Your task to perform on an android device: turn off wifi Image 0: 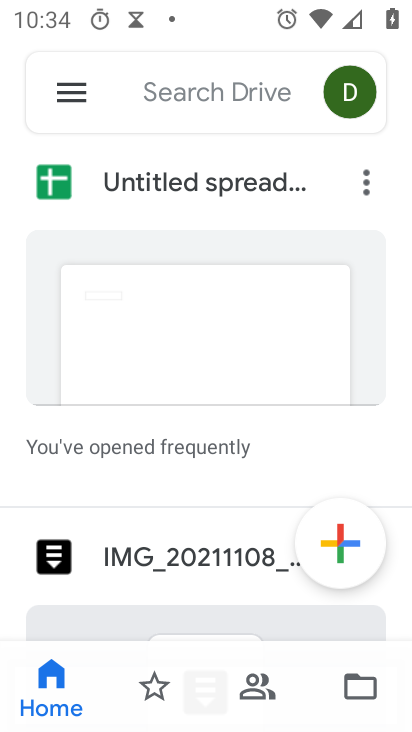
Step 0: press home button
Your task to perform on an android device: turn off wifi Image 1: 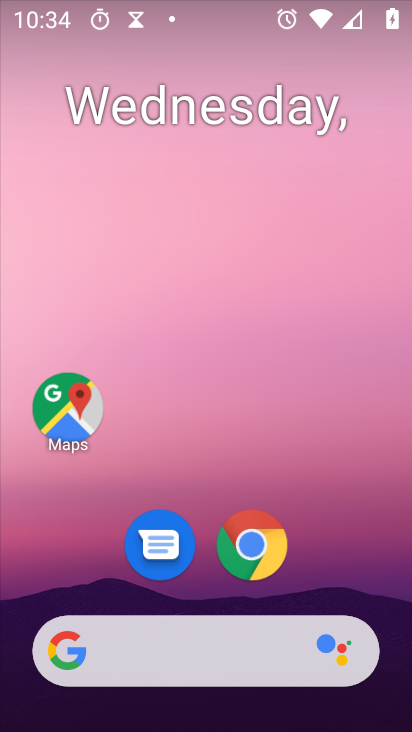
Step 1: drag from (158, 616) to (273, 127)
Your task to perform on an android device: turn off wifi Image 2: 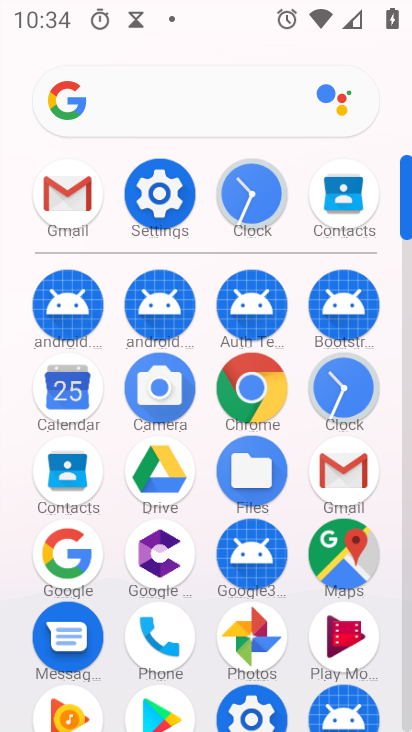
Step 2: click (167, 199)
Your task to perform on an android device: turn off wifi Image 3: 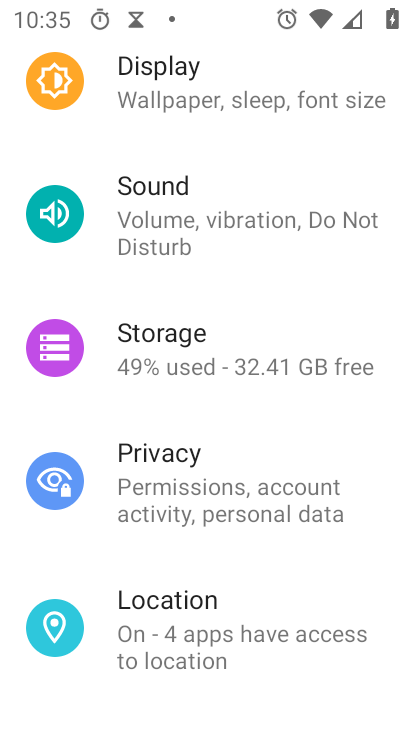
Step 3: drag from (258, 139) to (209, 502)
Your task to perform on an android device: turn off wifi Image 4: 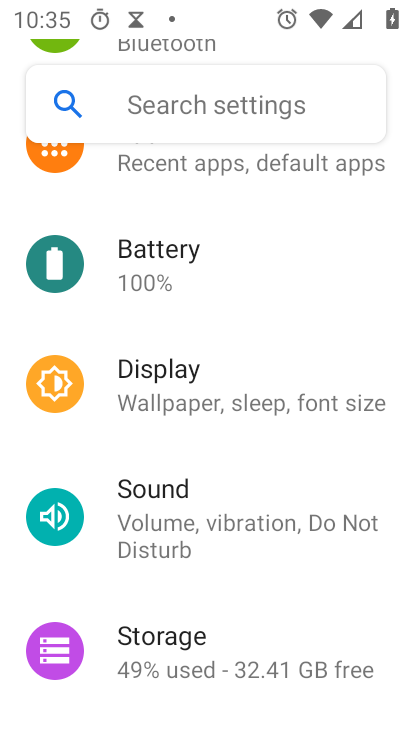
Step 4: drag from (271, 315) to (210, 667)
Your task to perform on an android device: turn off wifi Image 5: 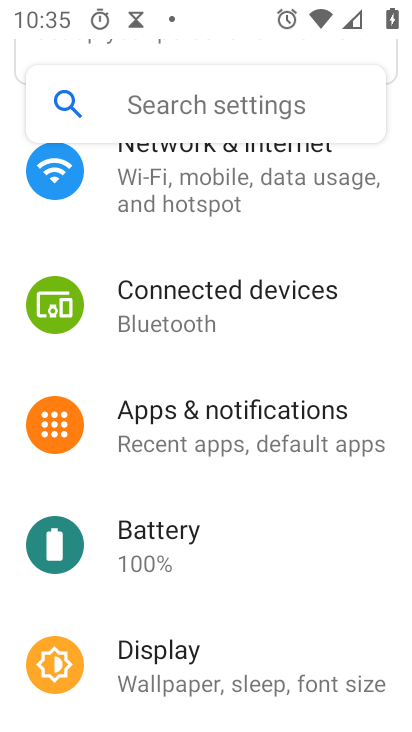
Step 5: drag from (286, 248) to (216, 609)
Your task to perform on an android device: turn off wifi Image 6: 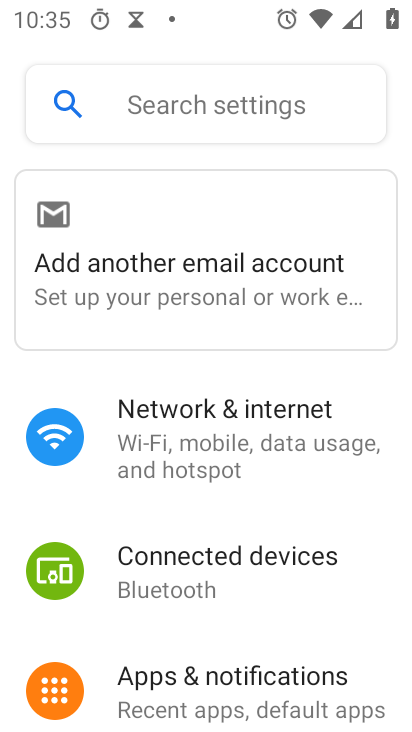
Step 6: click (238, 435)
Your task to perform on an android device: turn off wifi Image 7: 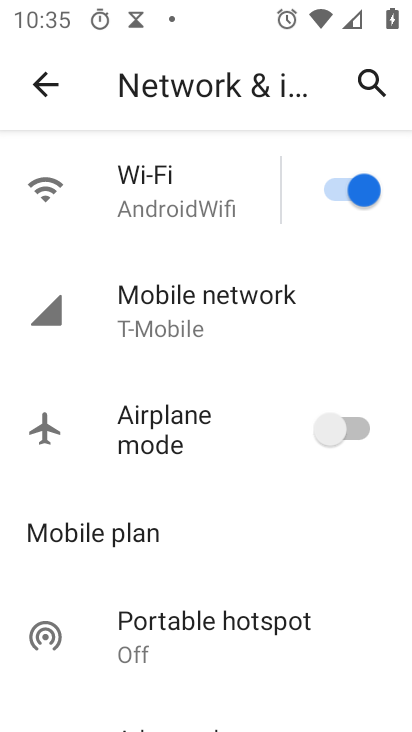
Step 7: click (347, 186)
Your task to perform on an android device: turn off wifi Image 8: 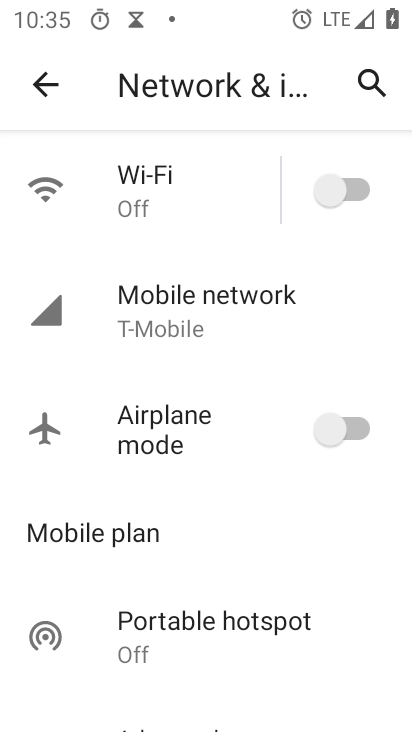
Step 8: task complete